Your task to perform on an android device: check battery use Image 0: 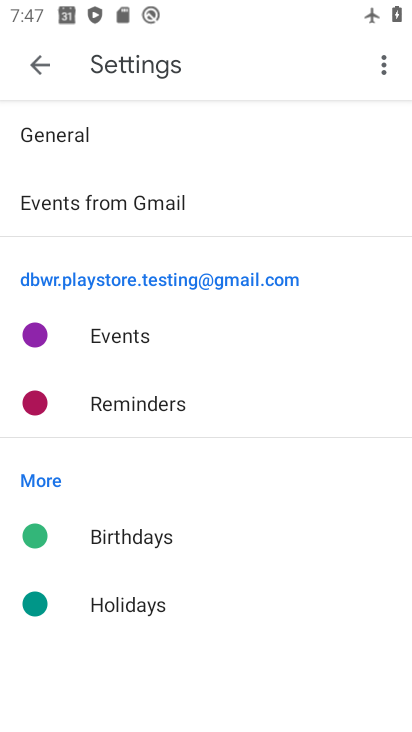
Step 0: press back button
Your task to perform on an android device: check battery use Image 1: 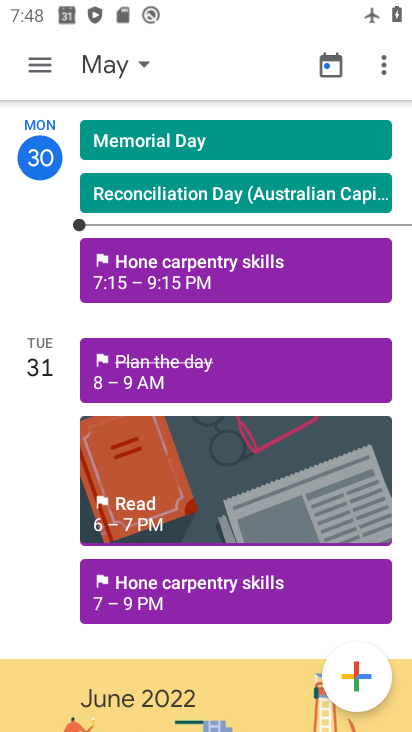
Step 1: press home button
Your task to perform on an android device: check battery use Image 2: 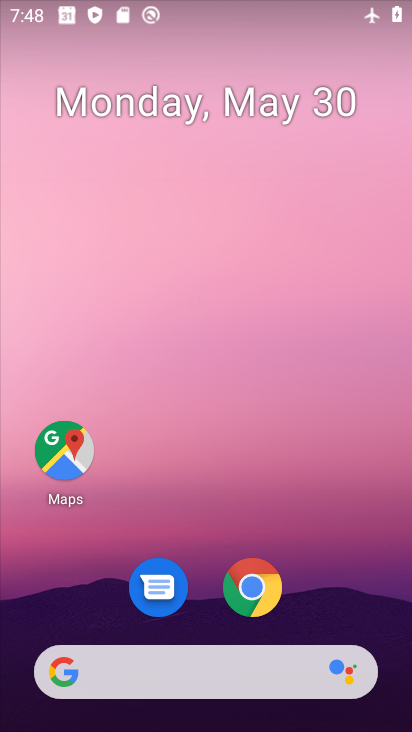
Step 2: drag from (393, 628) to (260, 34)
Your task to perform on an android device: check battery use Image 3: 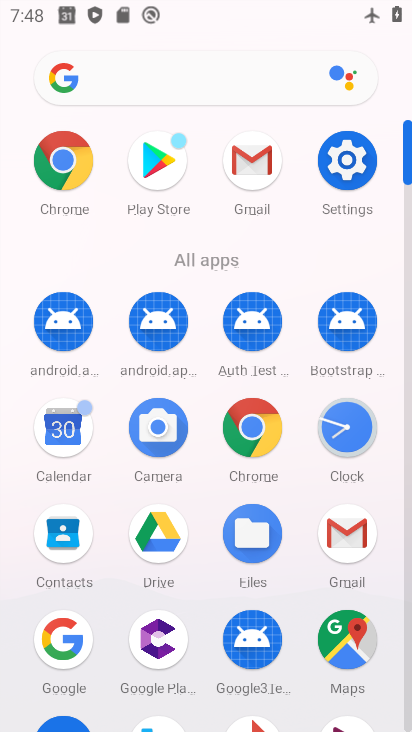
Step 3: click (349, 156)
Your task to perform on an android device: check battery use Image 4: 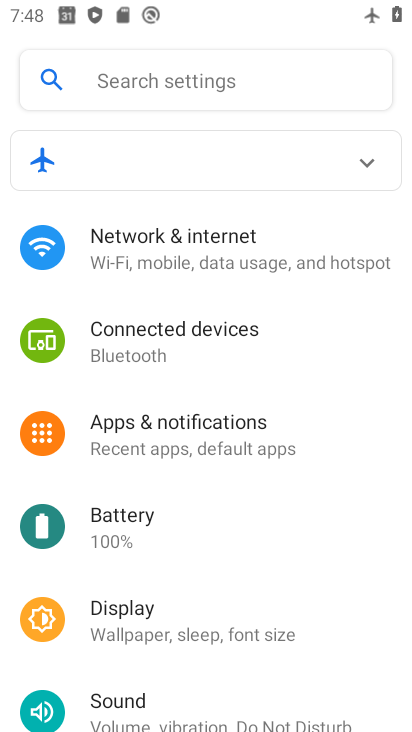
Step 4: click (155, 530)
Your task to perform on an android device: check battery use Image 5: 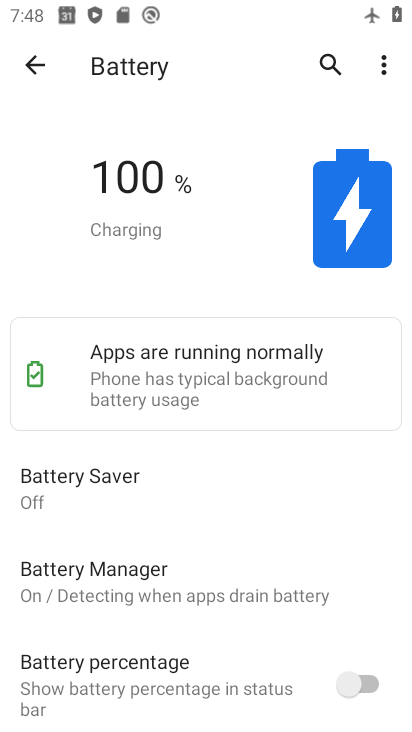
Step 5: task complete